Your task to perform on an android device: Open Chrome and go to settings Image 0: 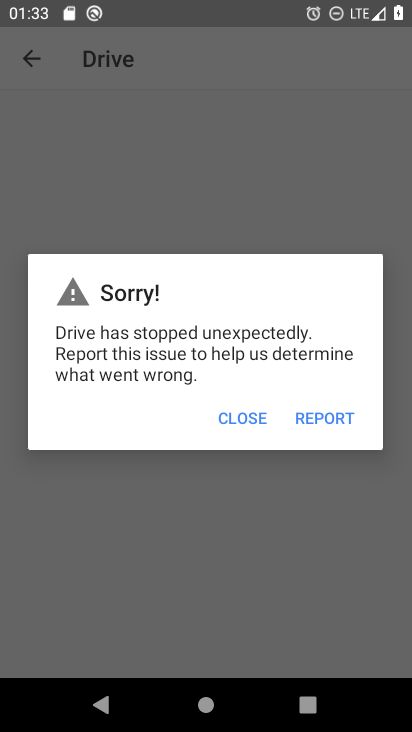
Step 0: press home button
Your task to perform on an android device: Open Chrome and go to settings Image 1: 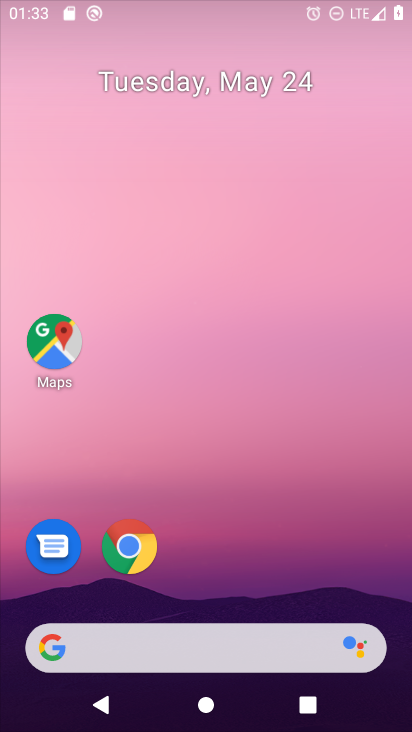
Step 1: drag from (288, 618) to (316, 15)
Your task to perform on an android device: Open Chrome and go to settings Image 2: 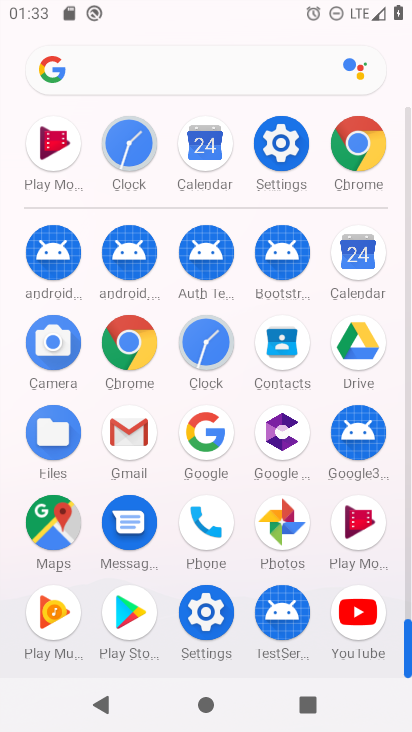
Step 2: click (129, 341)
Your task to perform on an android device: Open Chrome and go to settings Image 3: 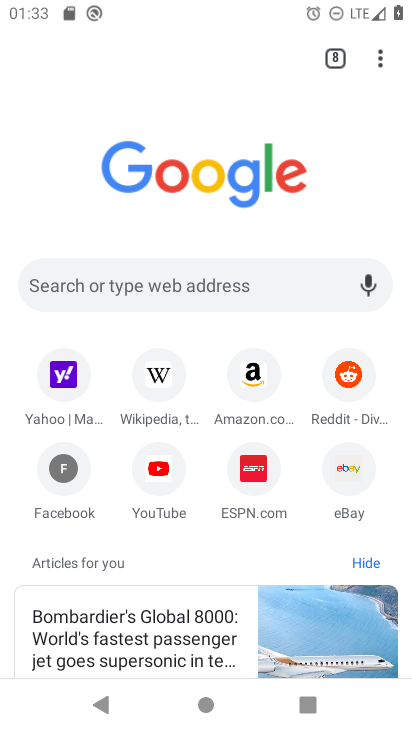
Step 3: drag from (382, 62) to (266, 494)
Your task to perform on an android device: Open Chrome and go to settings Image 4: 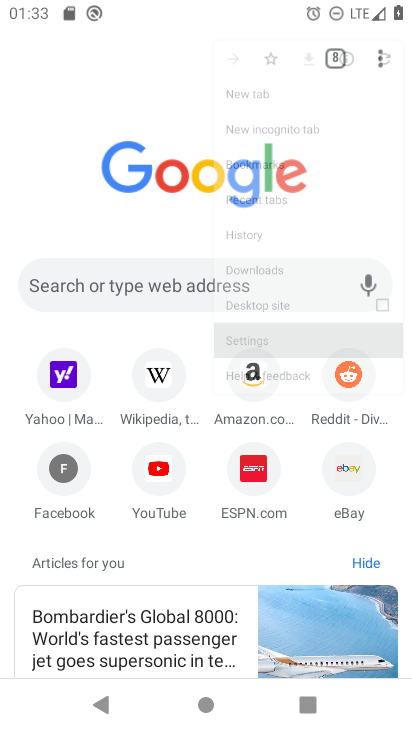
Step 4: click (214, 488)
Your task to perform on an android device: Open Chrome and go to settings Image 5: 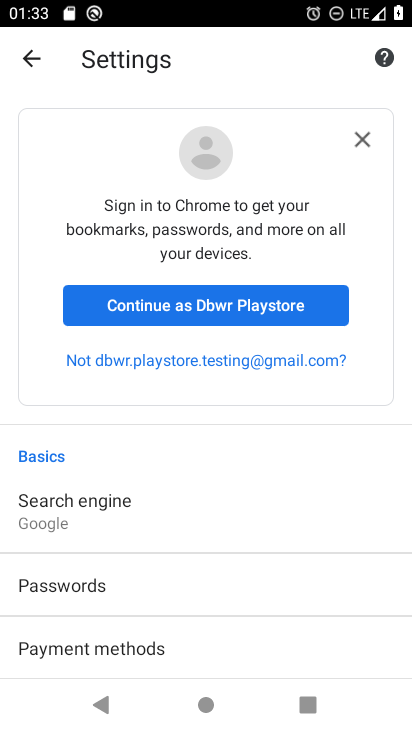
Step 5: task complete